Your task to perform on an android device: open chrome and create a bookmark for the current page Image 0: 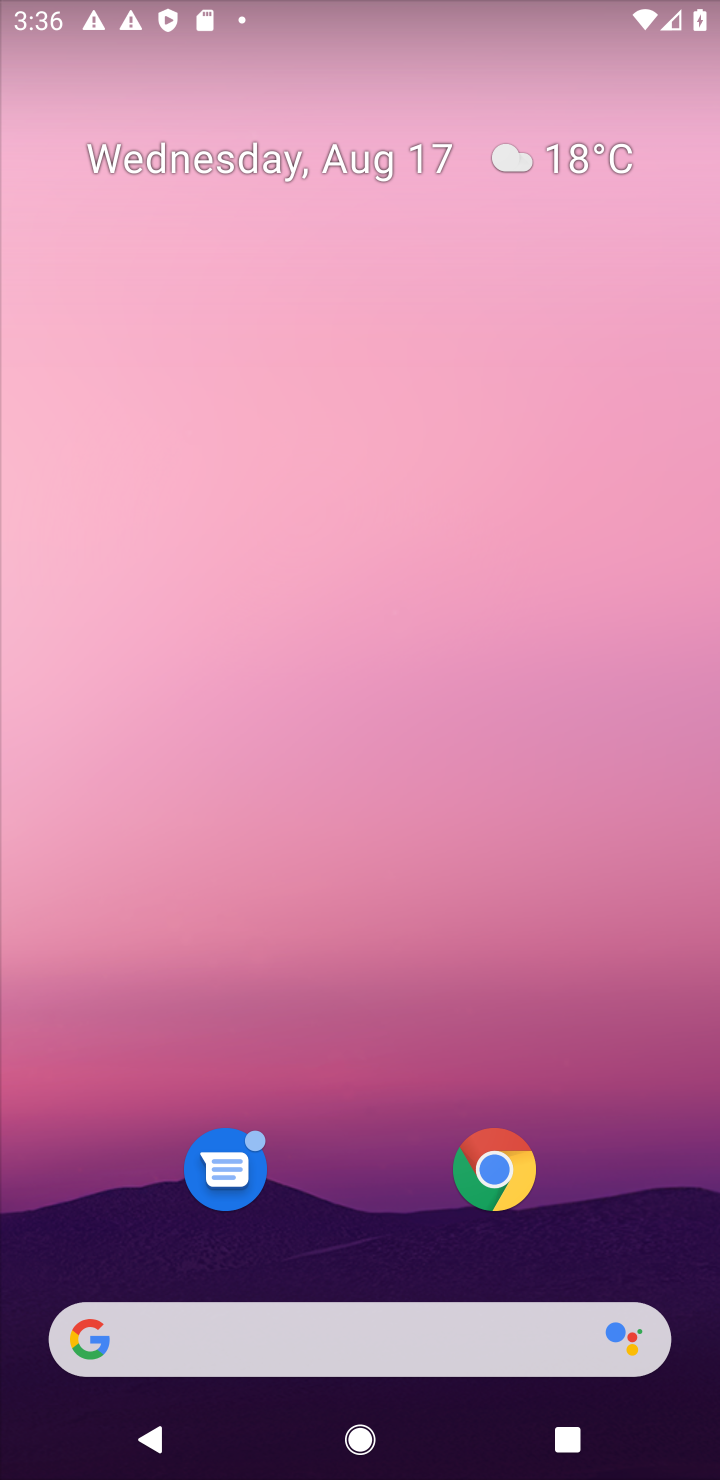
Step 0: drag from (333, 1210) to (338, 288)
Your task to perform on an android device: open chrome and create a bookmark for the current page Image 1: 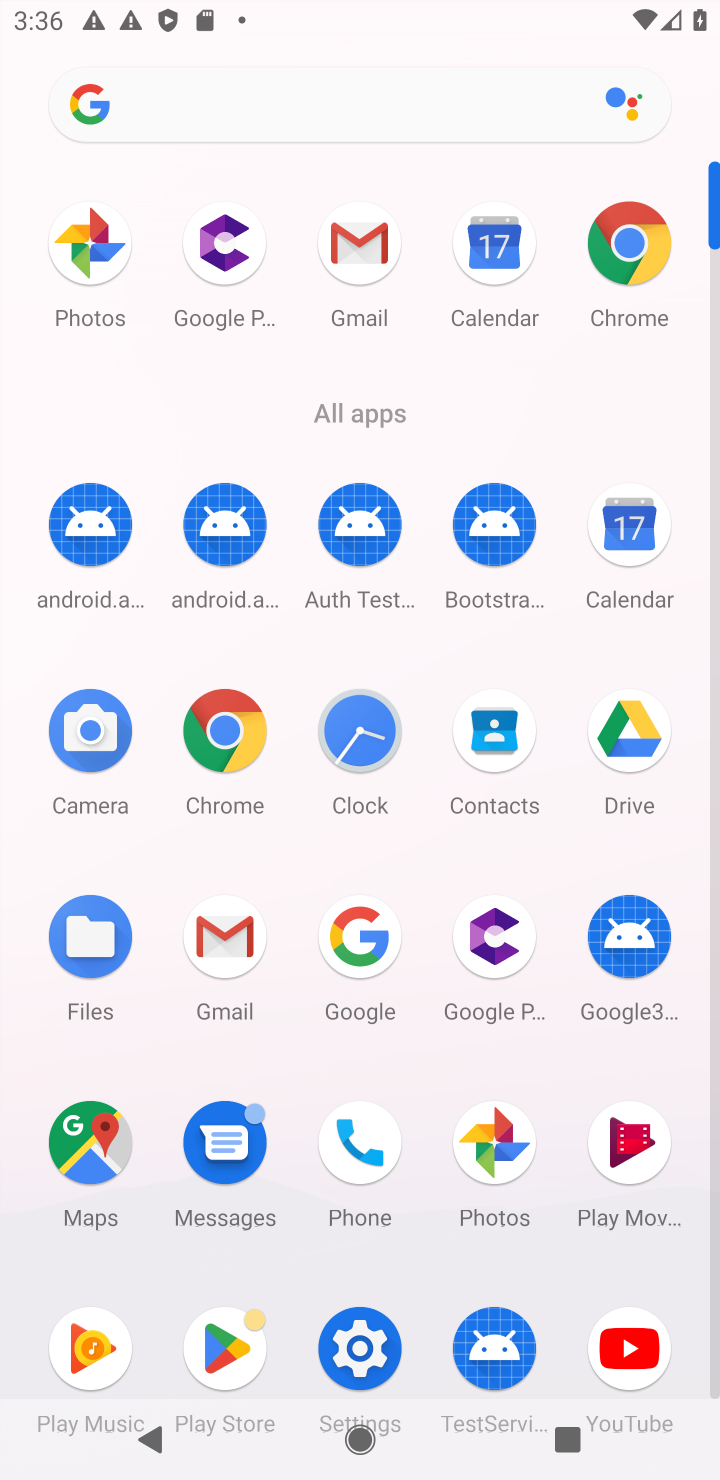
Step 1: click (206, 721)
Your task to perform on an android device: open chrome and create a bookmark for the current page Image 2: 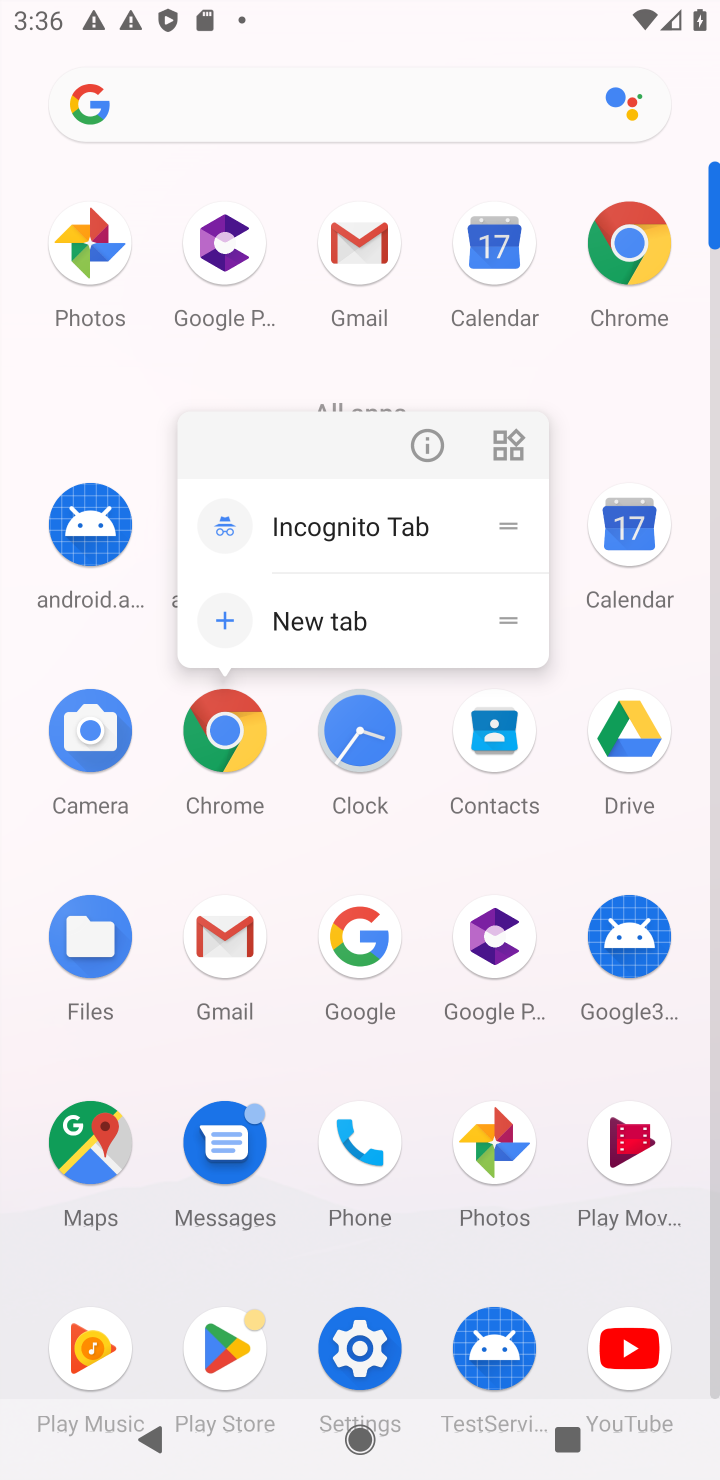
Step 2: click (231, 727)
Your task to perform on an android device: open chrome and create a bookmark for the current page Image 3: 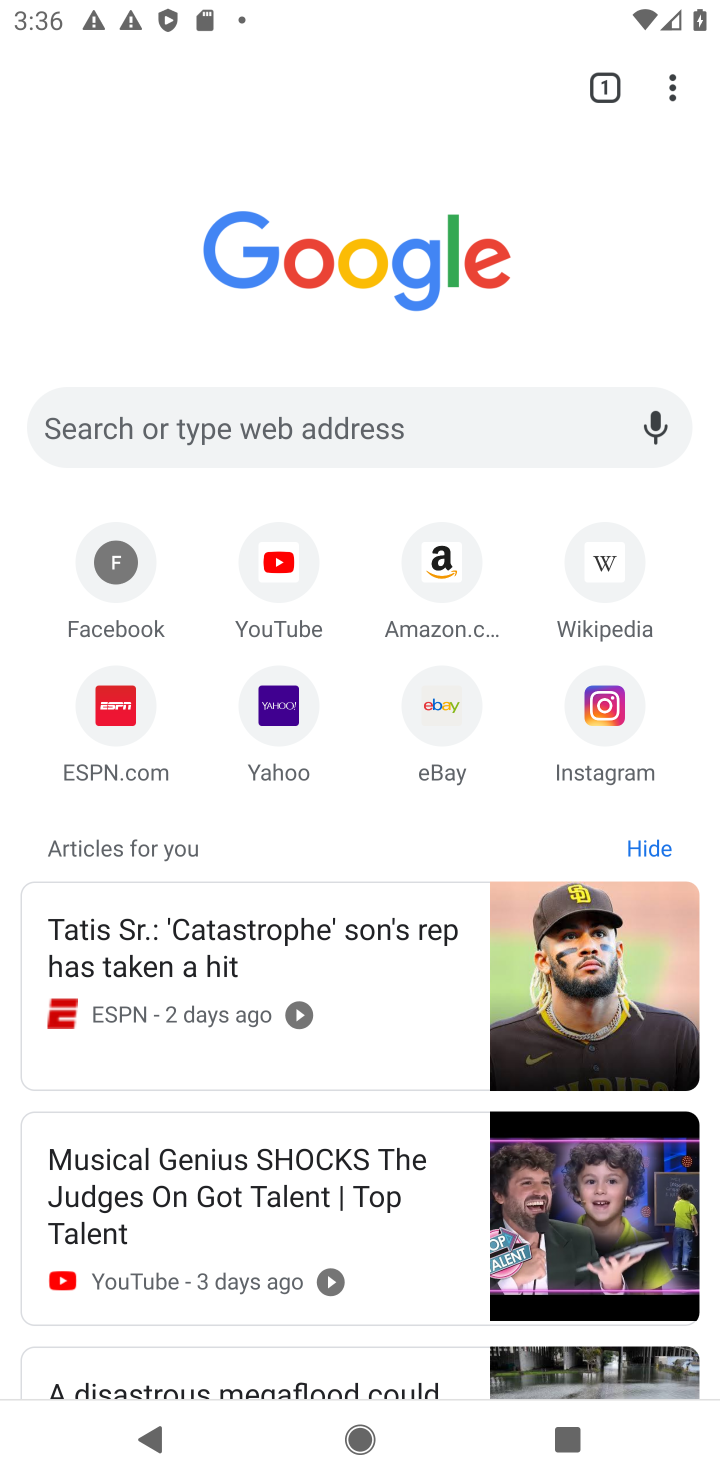
Step 3: task complete